Your task to perform on an android device: stop showing notifications on the lock screen Image 0: 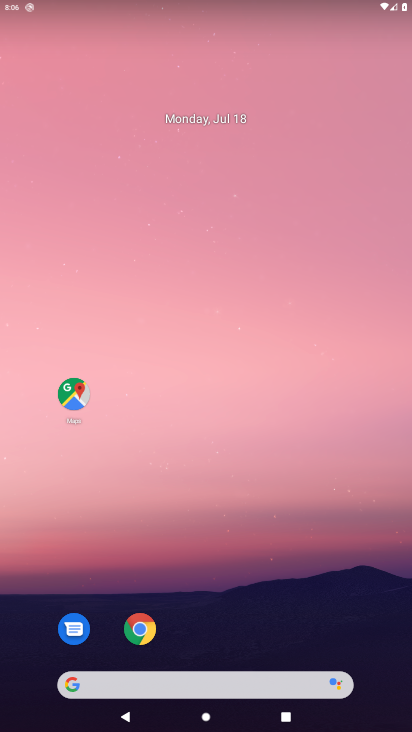
Step 0: drag from (64, 436) to (232, 64)
Your task to perform on an android device: stop showing notifications on the lock screen Image 1: 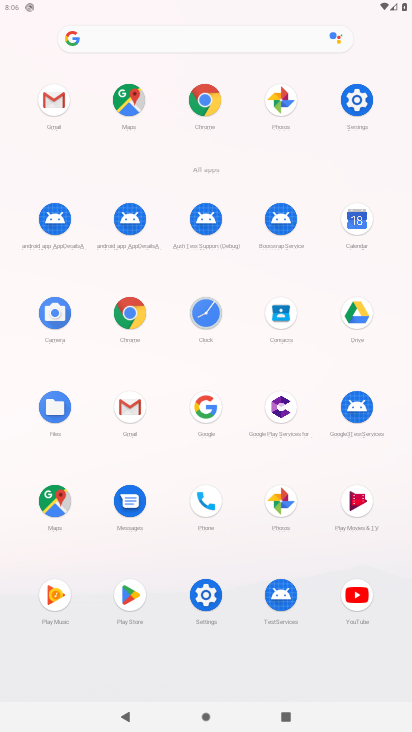
Step 1: click (346, 89)
Your task to perform on an android device: stop showing notifications on the lock screen Image 2: 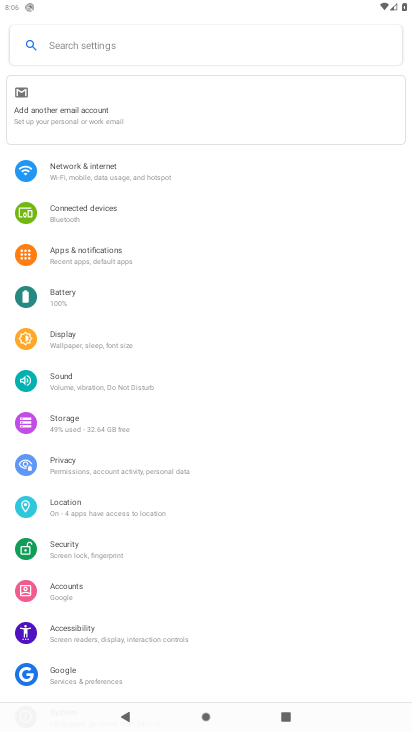
Step 2: click (78, 262)
Your task to perform on an android device: stop showing notifications on the lock screen Image 3: 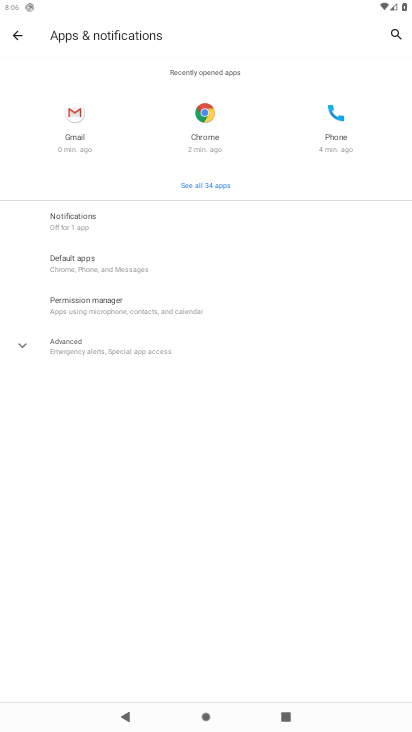
Step 3: click (107, 227)
Your task to perform on an android device: stop showing notifications on the lock screen Image 4: 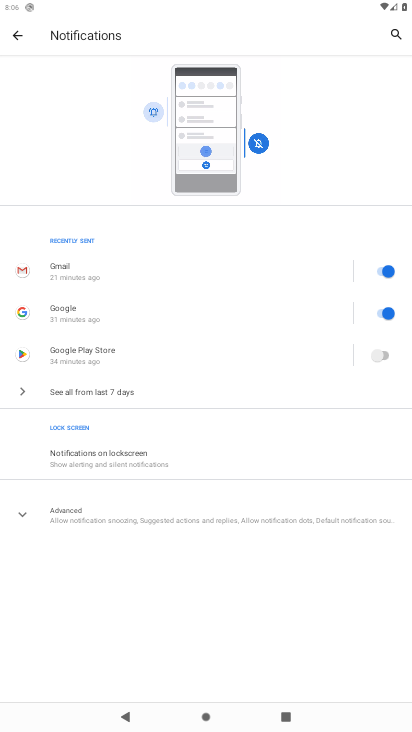
Step 4: click (153, 458)
Your task to perform on an android device: stop showing notifications on the lock screen Image 5: 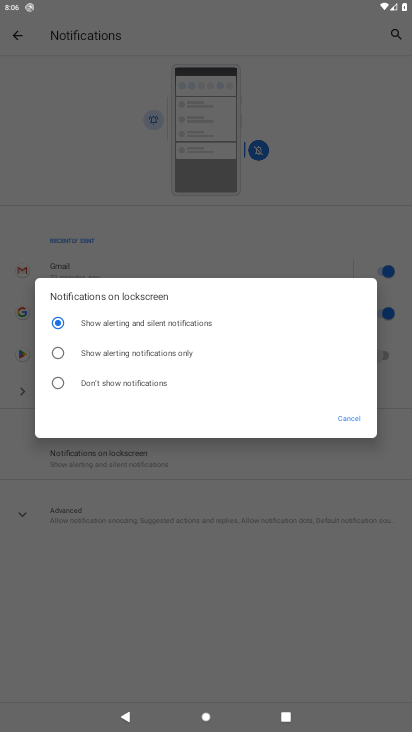
Step 5: click (54, 377)
Your task to perform on an android device: stop showing notifications on the lock screen Image 6: 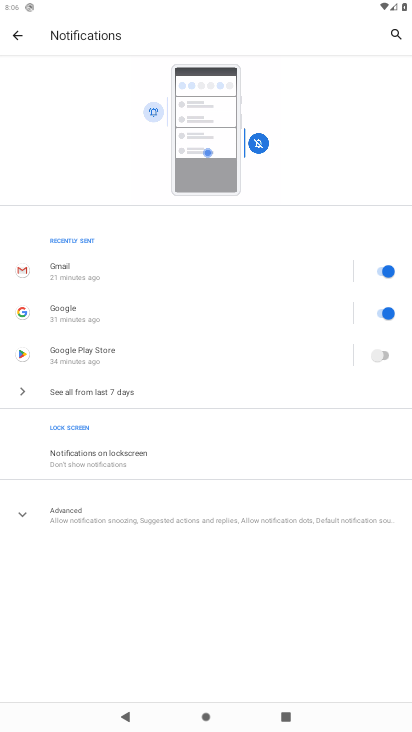
Step 6: task complete